Your task to perform on an android device: open app "Expedia: Hotels, Flights & Car" (install if not already installed) and enter user name: "crusader@outlook.com" and password: "Toryize" Image 0: 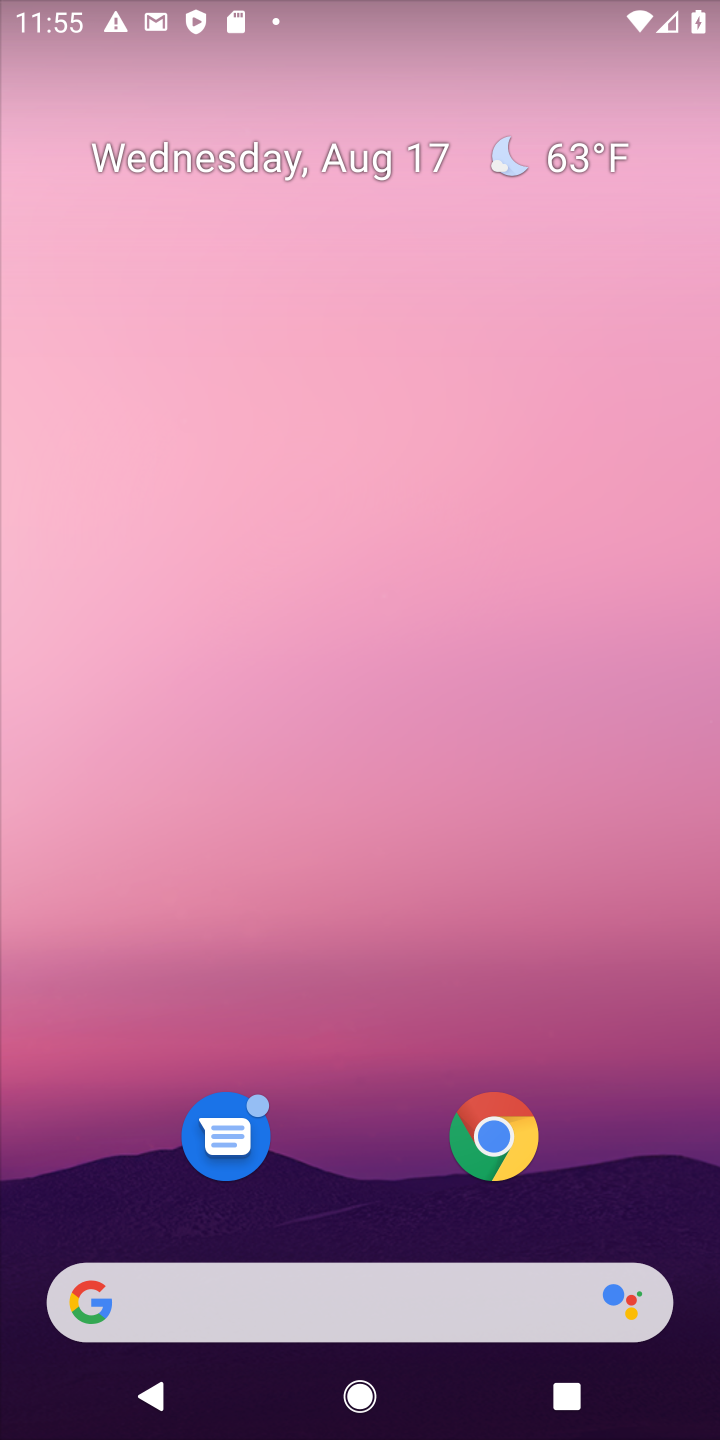
Step 0: drag from (385, 1284) to (400, 161)
Your task to perform on an android device: open app "Expedia: Hotels, Flights & Car" (install if not already installed) and enter user name: "crusader@outlook.com" and password: "Toryize" Image 1: 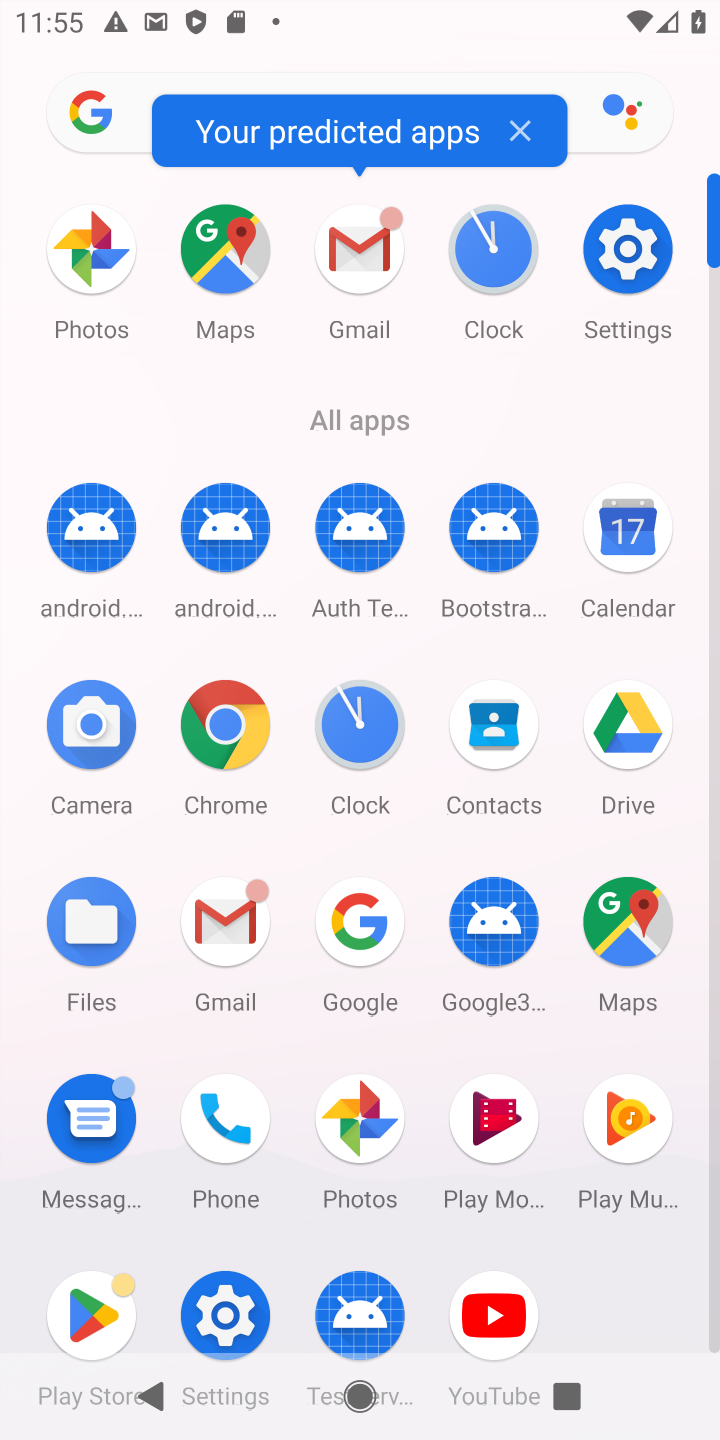
Step 1: drag from (84, 1324) to (452, 655)
Your task to perform on an android device: open app "Expedia: Hotels, Flights & Car" (install if not already installed) and enter user name: "crusader@outlook.com" and password: "Toryize" Image 2: 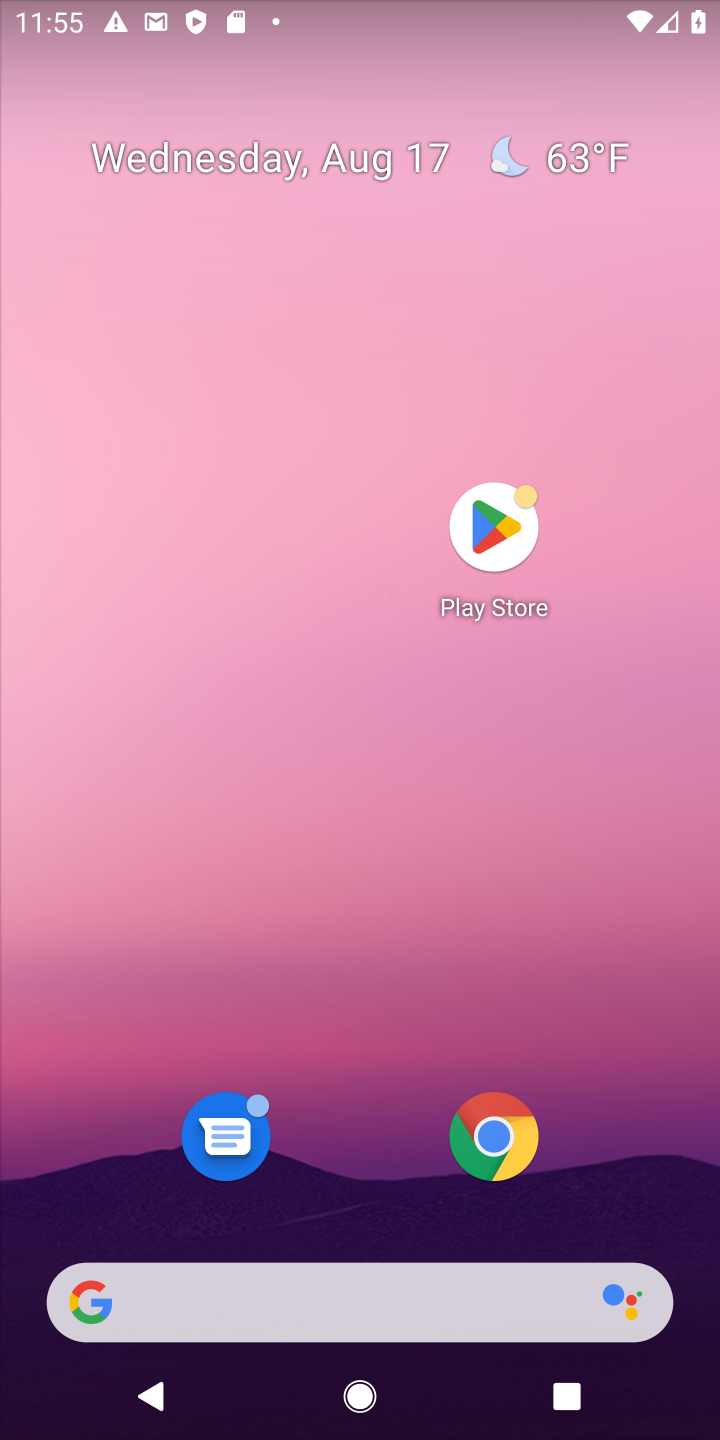
Step 2: drag from (492, 538) to (398, 828)
Your task to perform on an android device: open app "Expedia: Hotels, Flights & Car" (install if not already installed) and enter user name: "crusader@outlook.com" and password: "Toryize" Image 3: 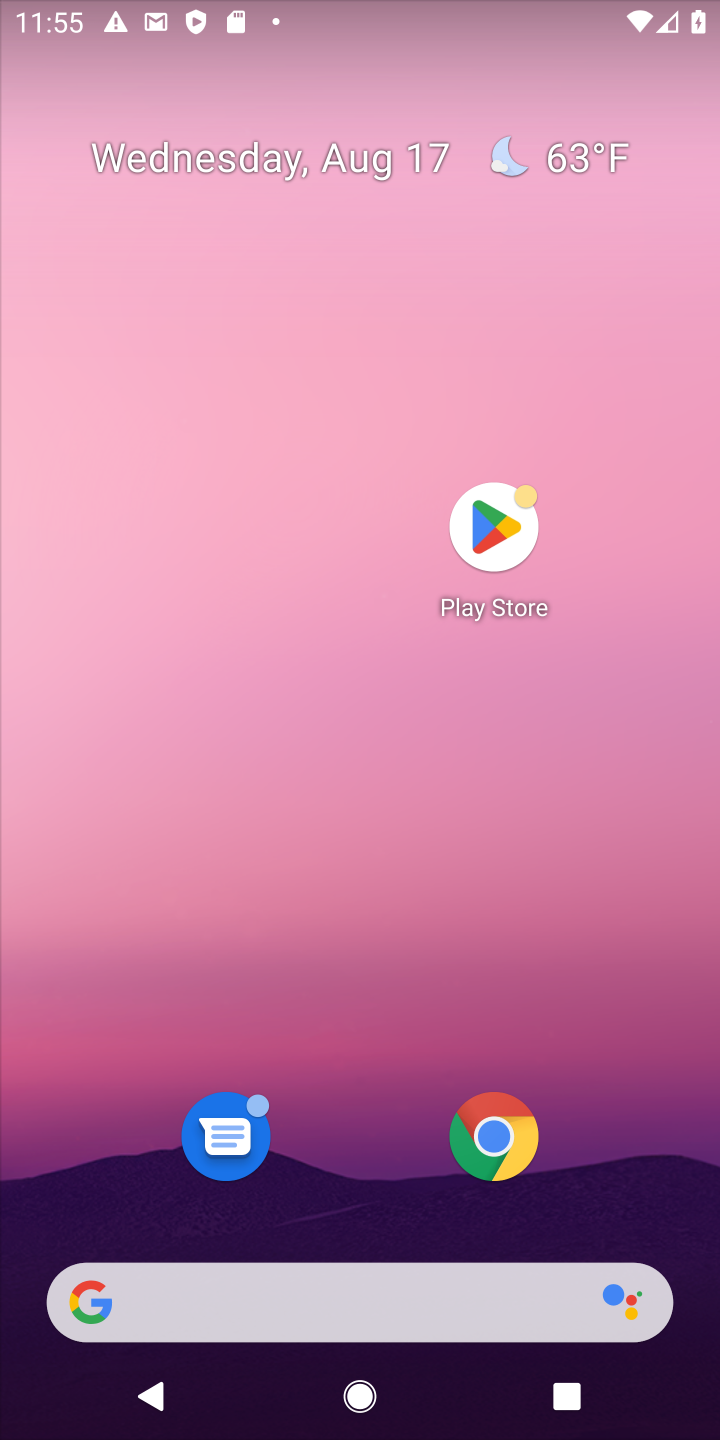
Step 3: drag from (489, 527) to (434, 741)
Your task to perform on an android device: open app "Expedia: Hotels, Flights & Car" (install if not already installed) and enter user name: "crusader@outlook.com" and password: "Toryize" Image 4: 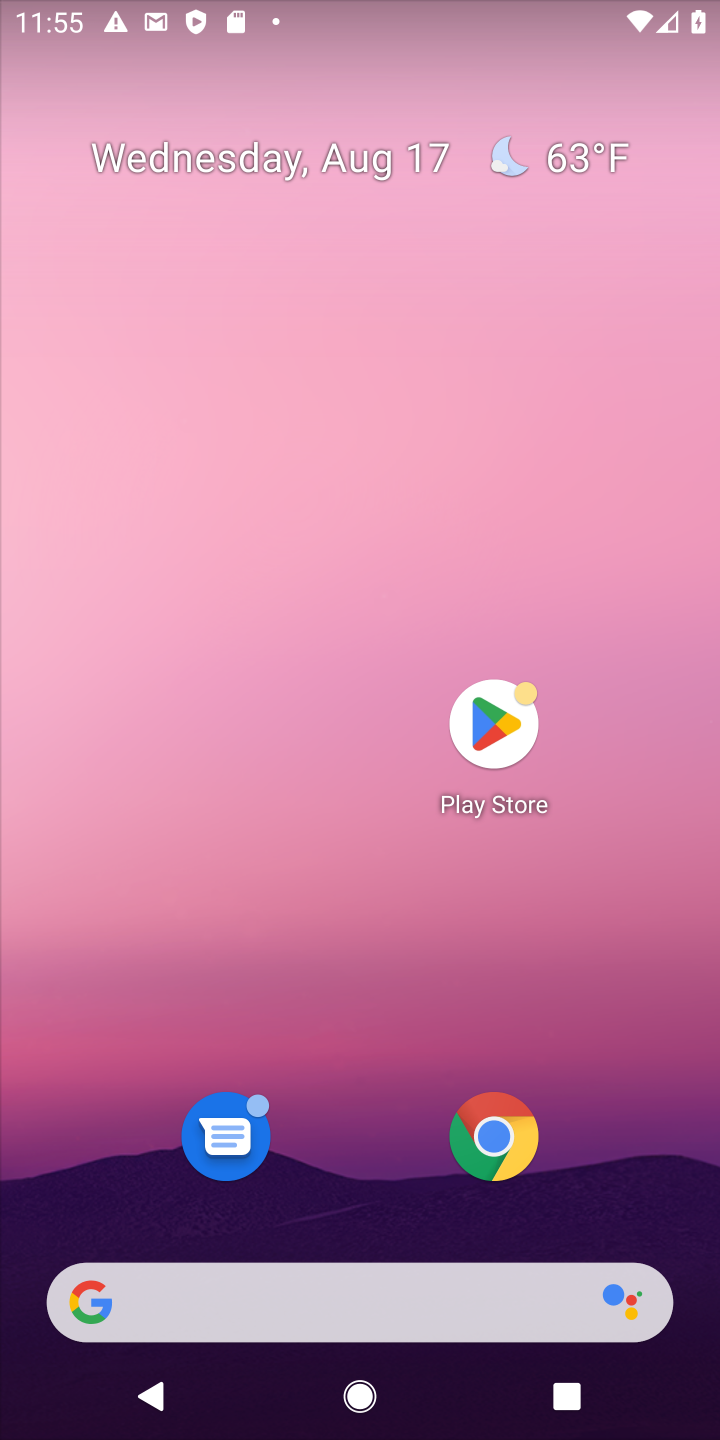
Step 4: click (499, 736)
Your task to perform on an android device: open app "Expedia: Hotels, Flights & Car" (install if not already installed) and enter user name: "crusader@outlook.com" and password: "Toryize" Image 5: 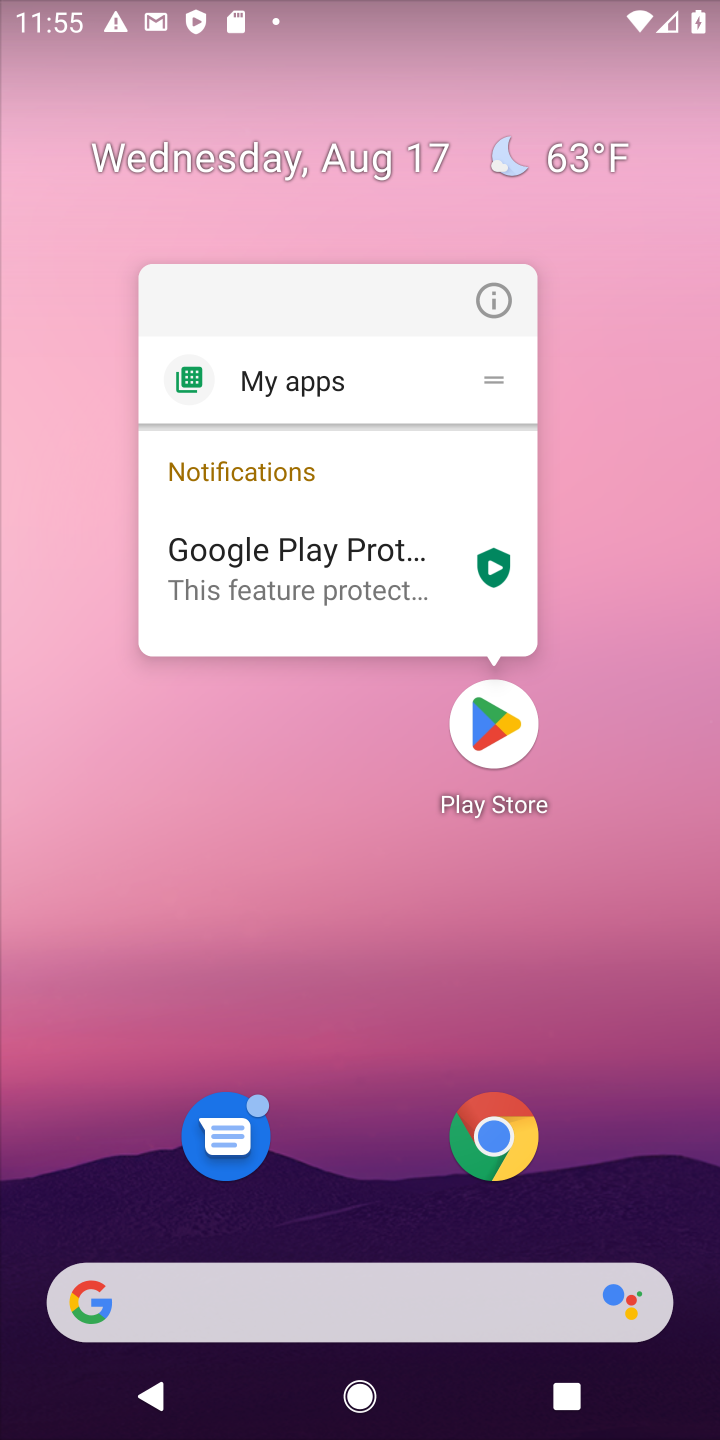
Step 5: click (475, 739)
Your task to perform on an android device: open app "Expedia: Hotels, Flights & Car" (install if not already installed) and enter user name: "crusader@outlook.com" and password: "Toryize" Image 6: 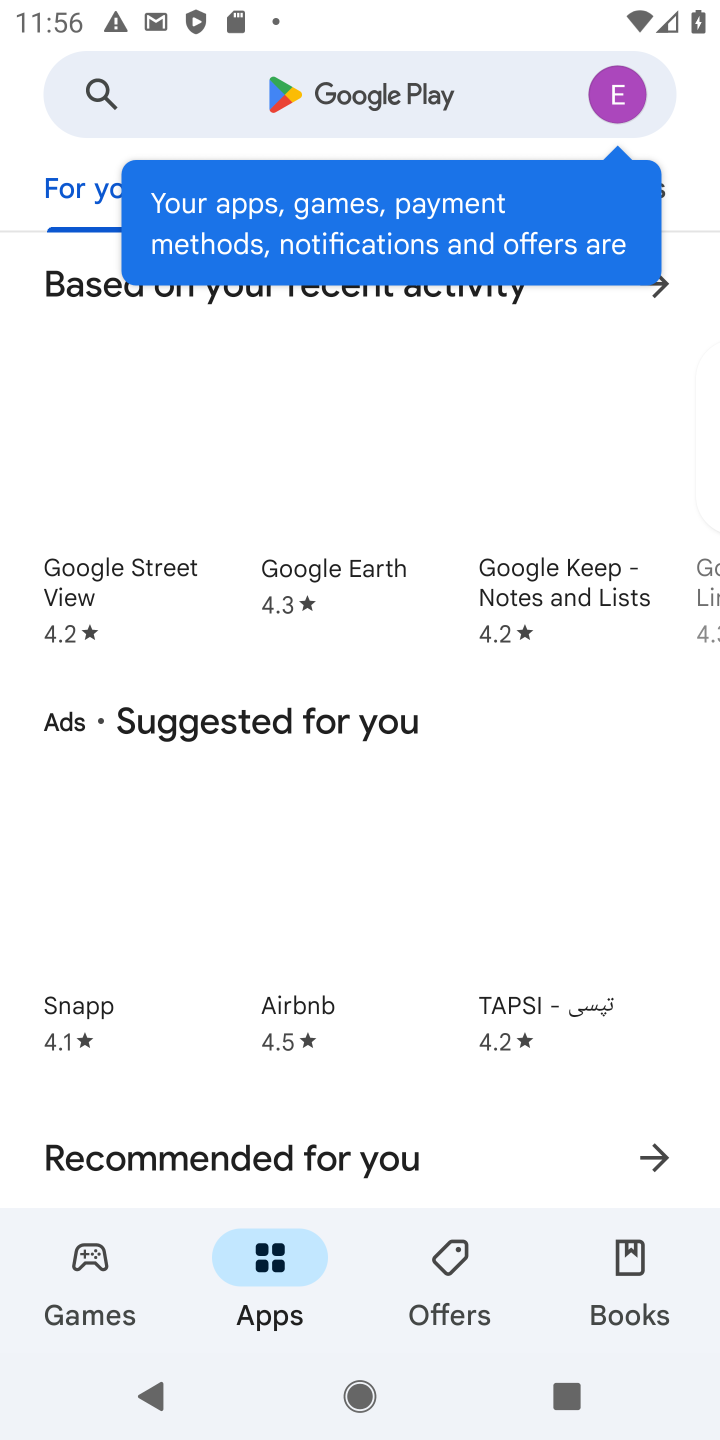
Step 6: click (356, 88)
Your task to perform on an android device: open app "Expedia: Hotels, Flights & Car" (install if not already installed) and enter user name: "crusader@outlook.com" and password: "Toryize" Image 7: 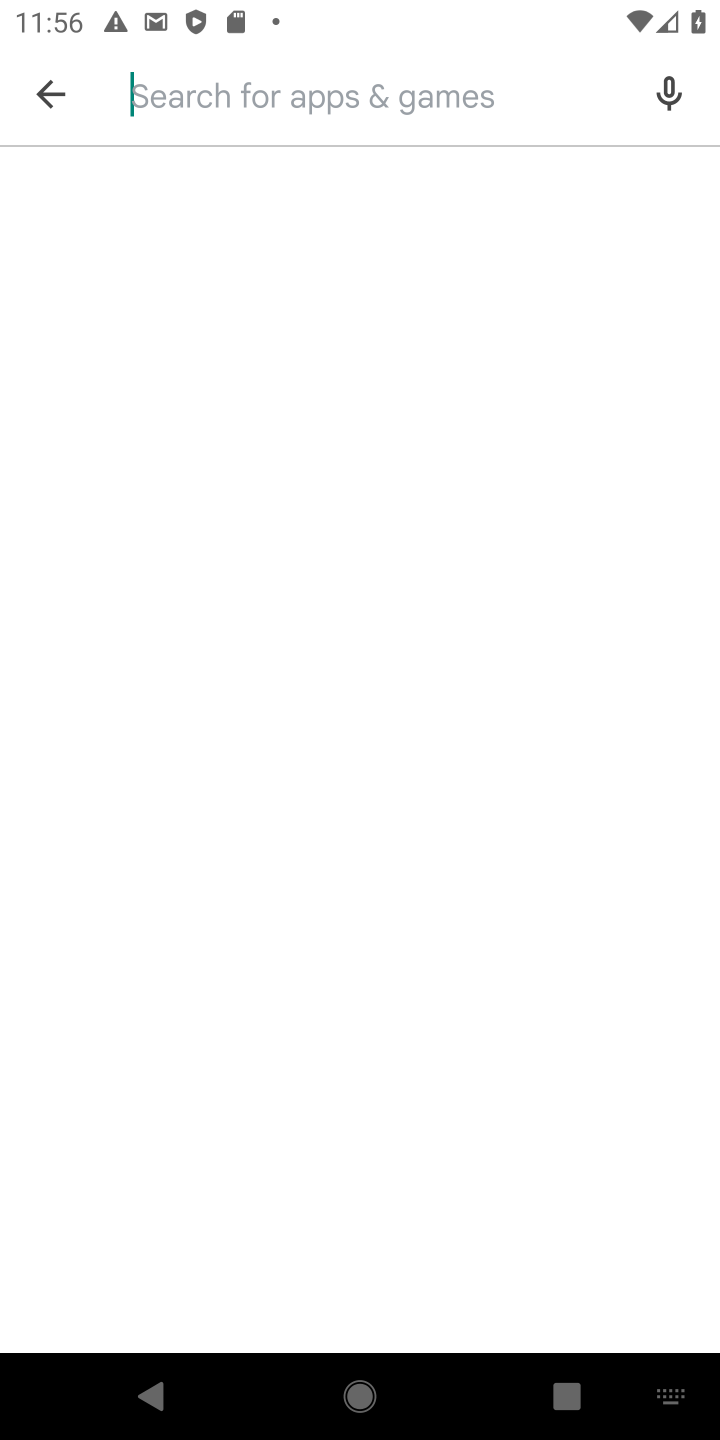
Step 7: type "Expedia: Hotels, Flights & Car"
Your task to perform on an android device: open app "Expedia: Hotels, Flights & Car" (install if not already installed) and enter user name: "crusader@outlook.com" and password: "Toryize" Image 8: 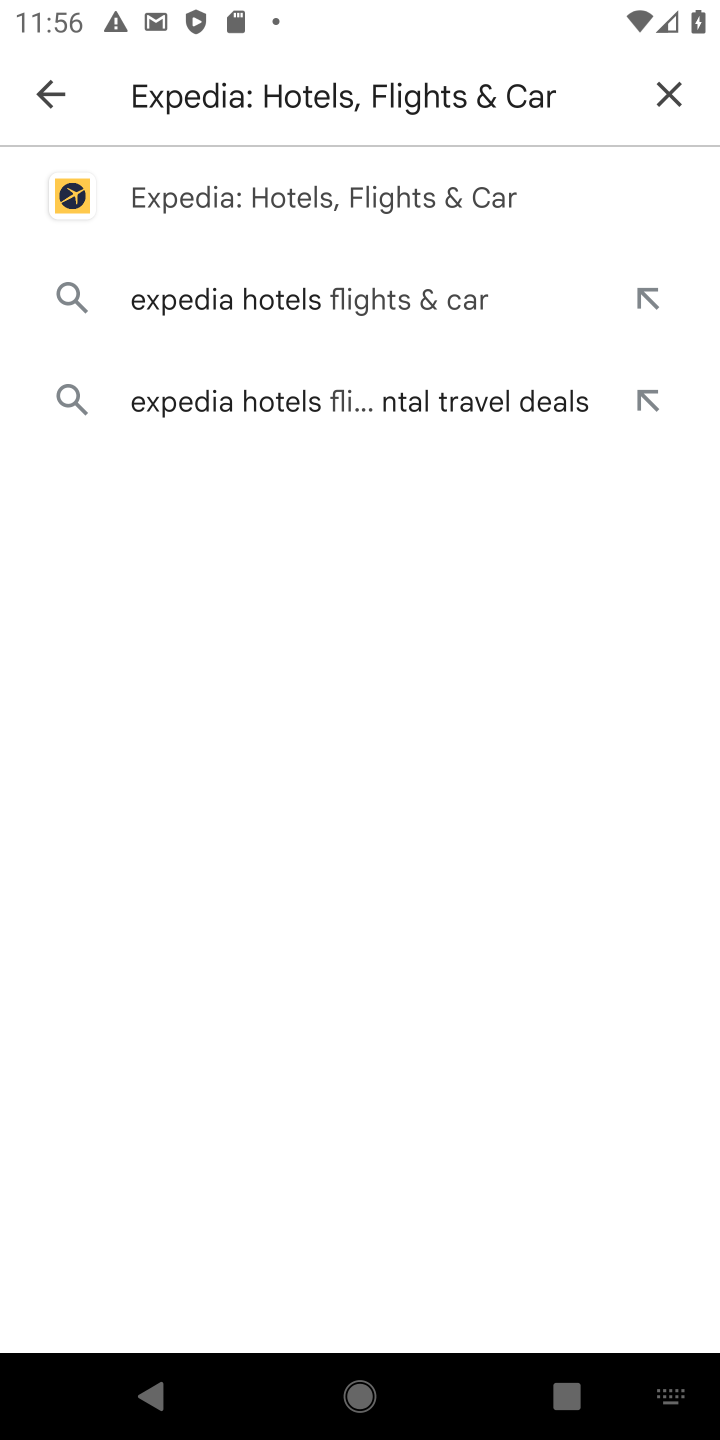
Step 8: click (249, 194)
Your task to perform on an android device: open app "Expedia: Hotels, Flights & Car" (install if not already installed) and enter user name: "crusader@outlook.com" and password: "Toryize" Image 9: 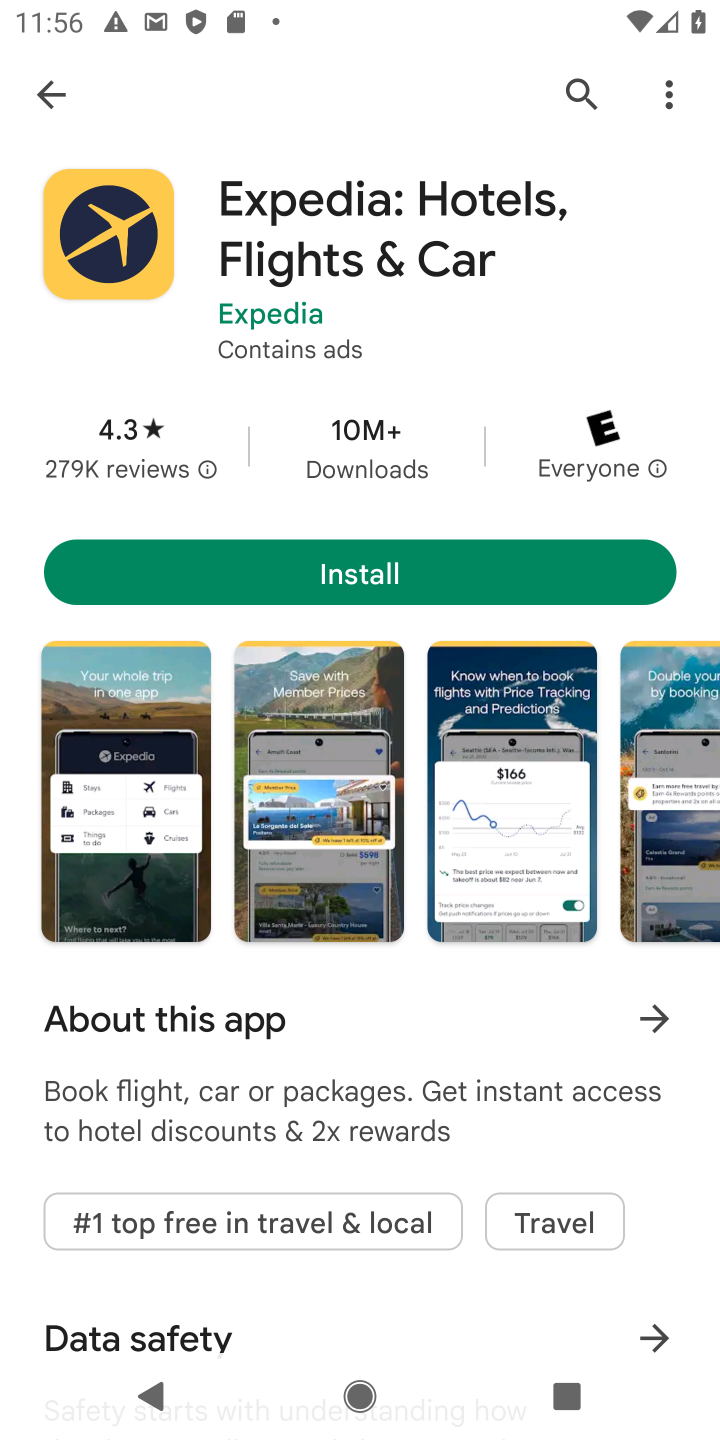
Step 9: click (340, 573)
Your task to perform on an android device: open app "Expedia: Hotels, Flights & Car" (install if not already installed) and enter user name: "crusader@outlook.com" and password: "Toryize" Image 10: 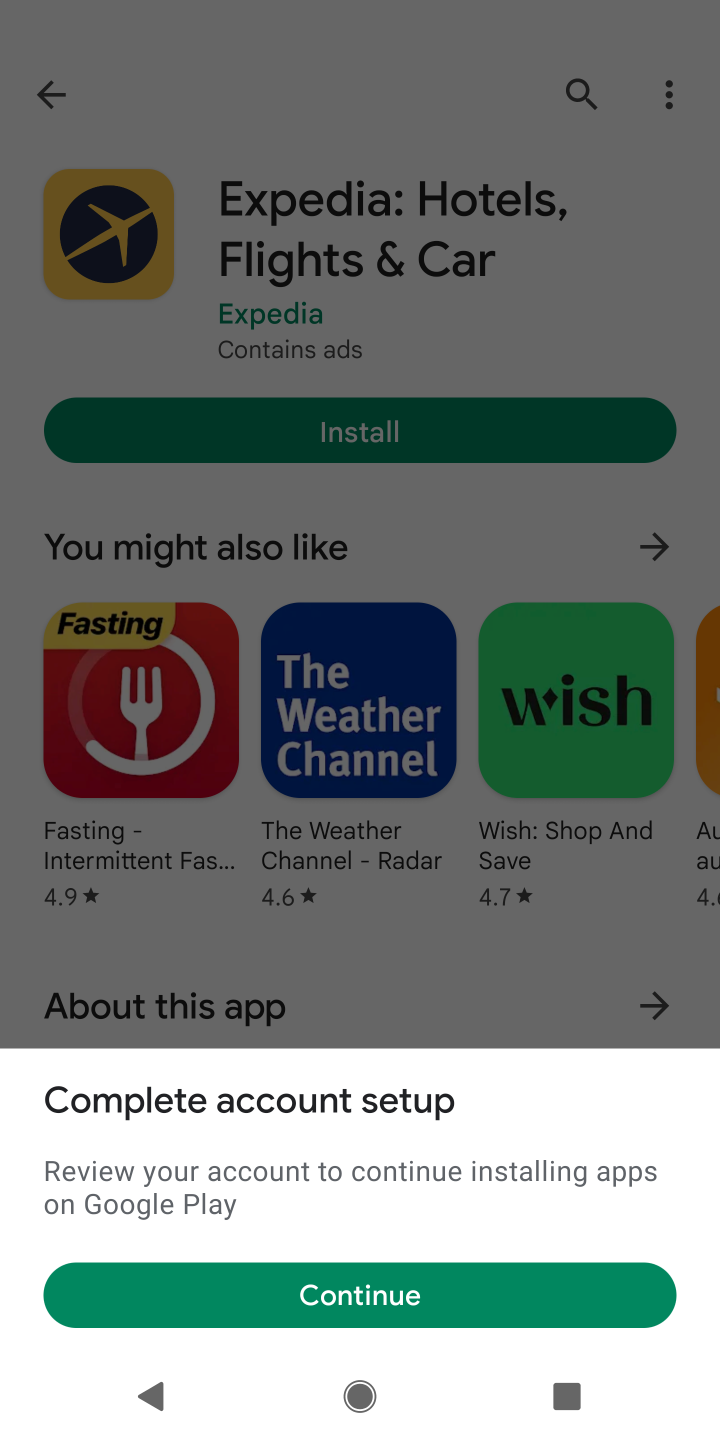
Step 10: click (359, 1304)
Your task to perform on an android device: open app "Expedia: Hotels, Flights & Car" (install if not already installed) and enter user name: "crusader@outlook.com" and password: "Toryize" Image 11: 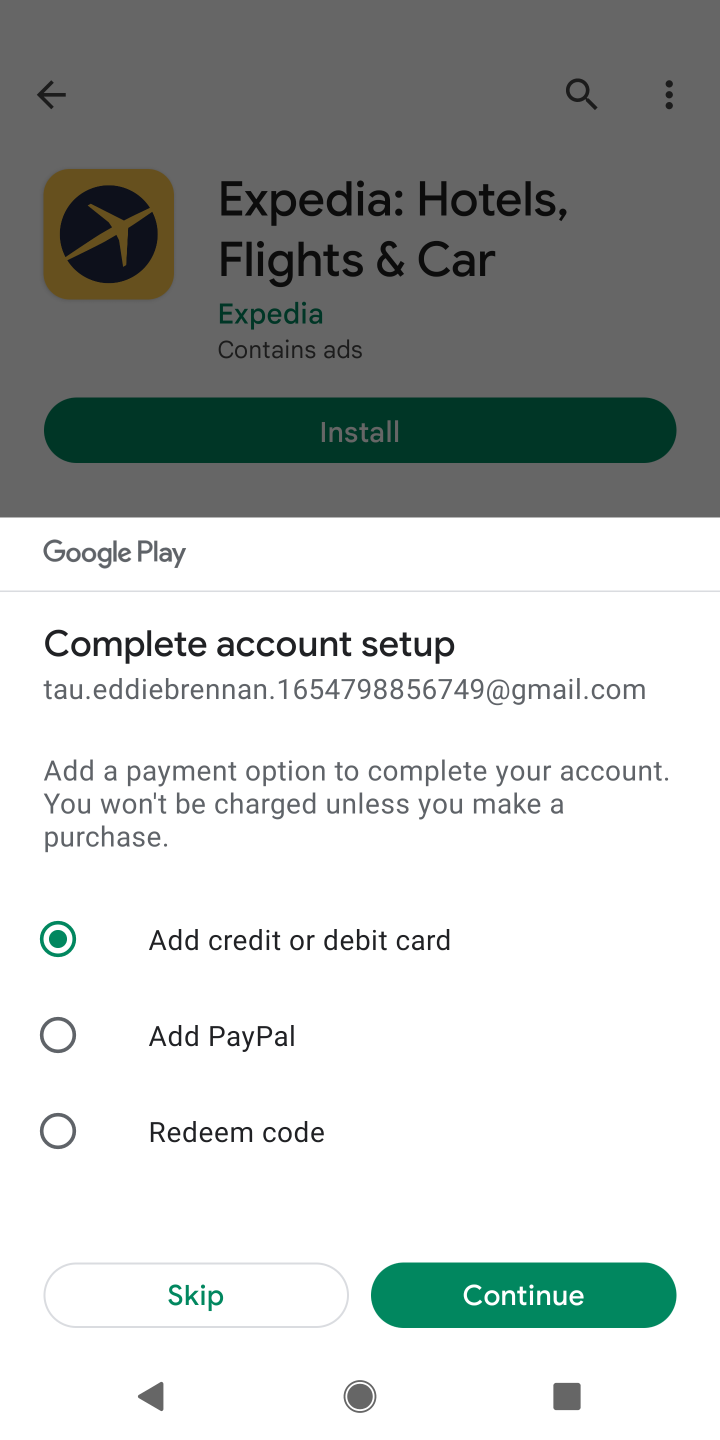
Step 11: click (169, 1306)
Your task to perform on an android device: open app "Expedia: Hotels, Flights & Car" (install if not already installed) and enter user name: "crusader@outlook.com" and password: "Toryize" Image 12: 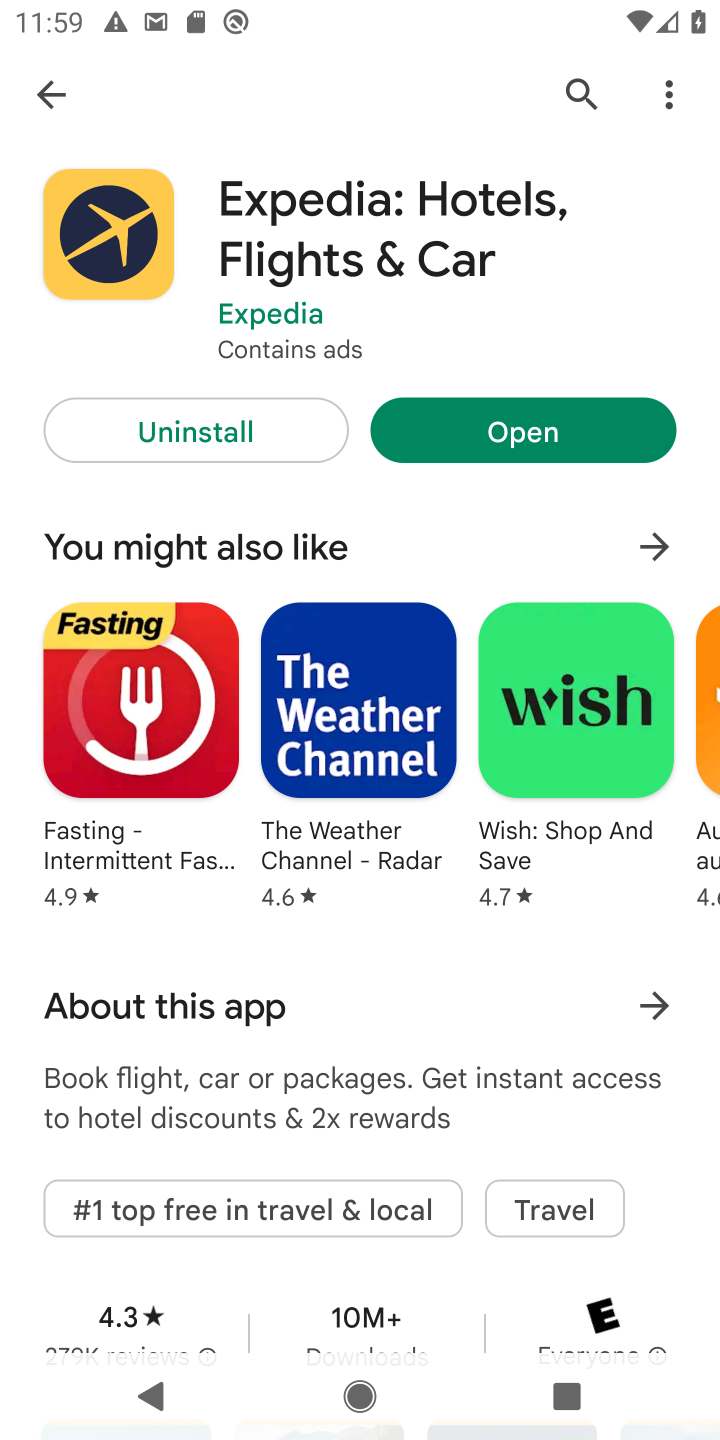
Step 12: click (535, 432)
Your task to perform on an android device: open app "Expedia: Hotels, Flights & Car" (install if not already installed) and enter user name: "crusader@outlook.com" and password: "Toryize" Image 13: 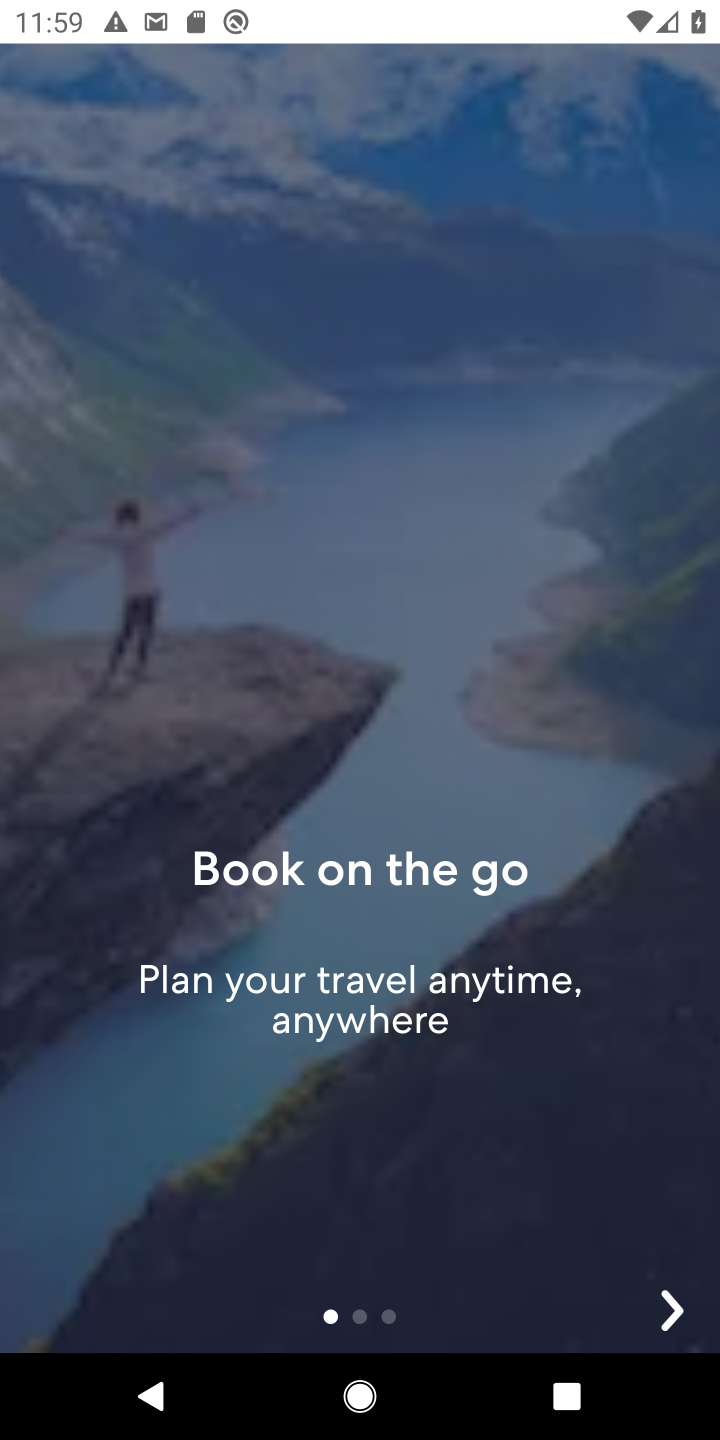
Step 13: click (673, 1297)
Your task to perform on an android device: open app "Expedia: Hotels, Flights & Car" (install if not already installed) and enter user name: "crusader@outlook.com" and password: "Toryize" Image 14: 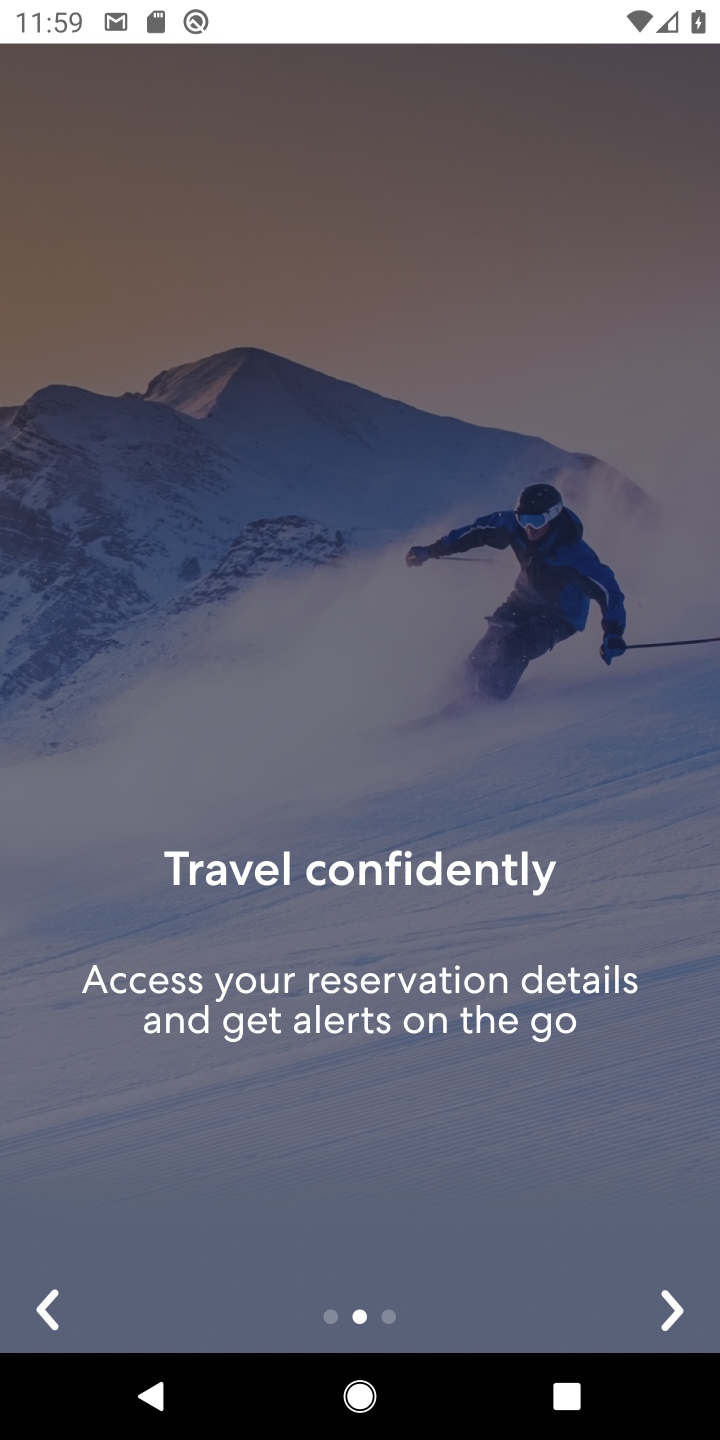
Step 14: click (675, 1313)
Your task to perform on an android device: open app "Expedia: Hotels, Flights & Car" (install if not already installed) and enter user name: "crusader@outlook.com" and password: "Toryize" Image 15: 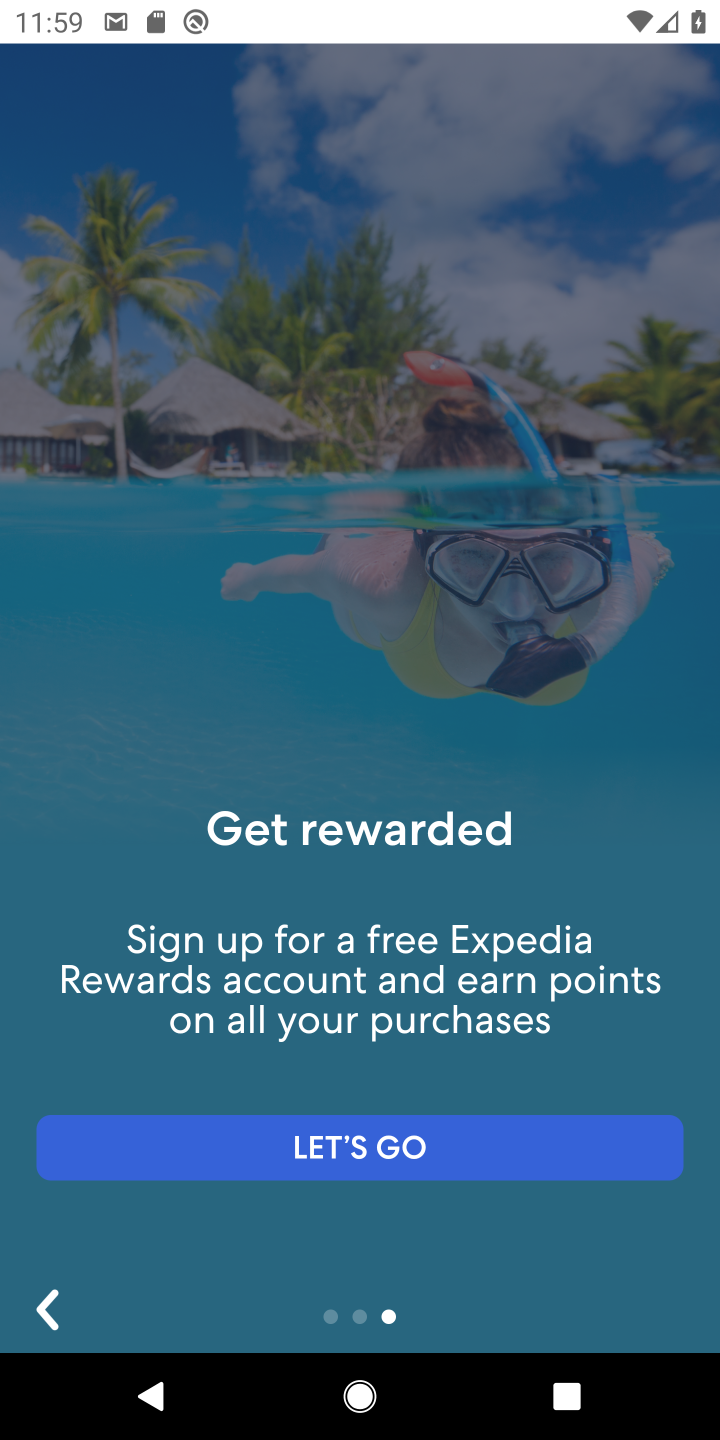
Step 15: click (402, 1151)
Your task to perform on an android device: open app "Expedia: Hotels, Flights & Car" (install if not already installed) and enter user name: "crusader@outlook.com" and password: "Toryize" Image 16: 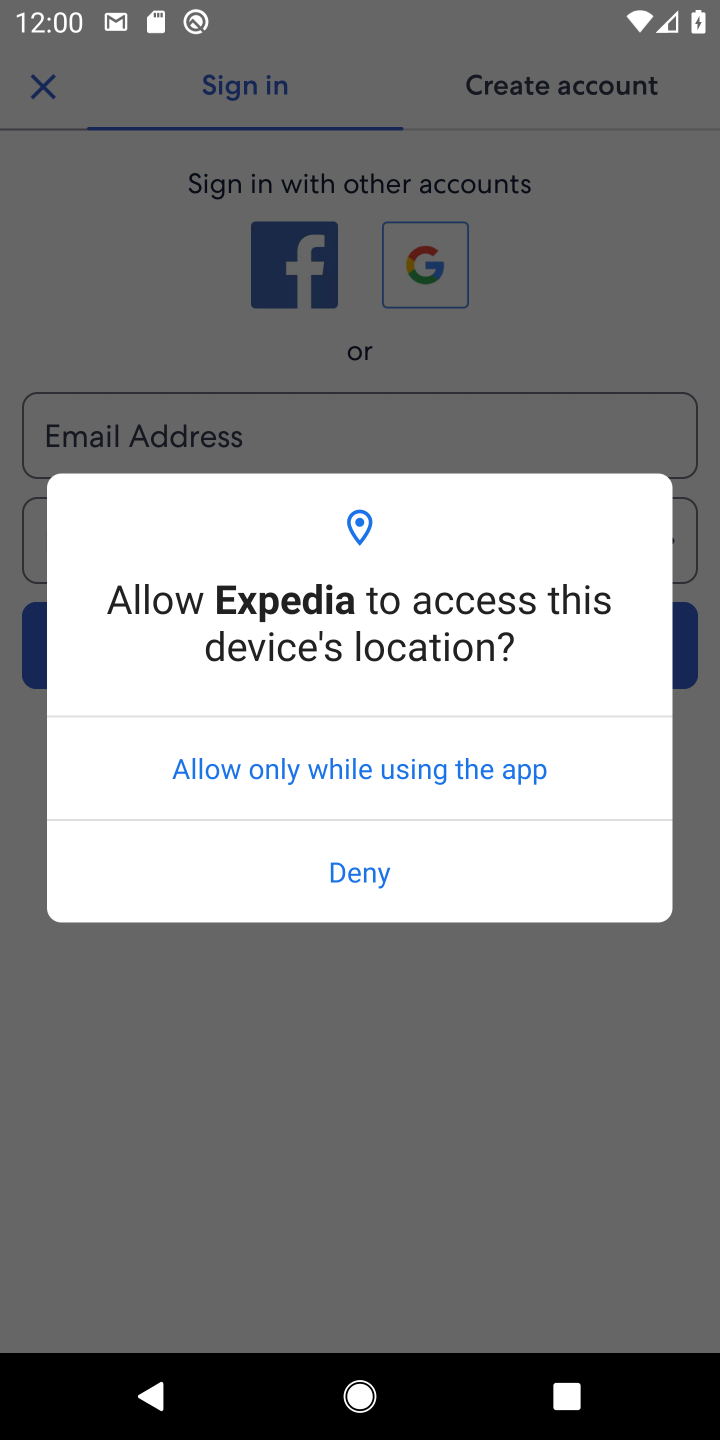
Step 16: click (461, 764)
Your task to perform on an android device: open app "Expedia: Hotels, Flights & Car" (install if not already installed) and enter user name: "crusader@outlook.com" and password: "Toryize" Image 17: 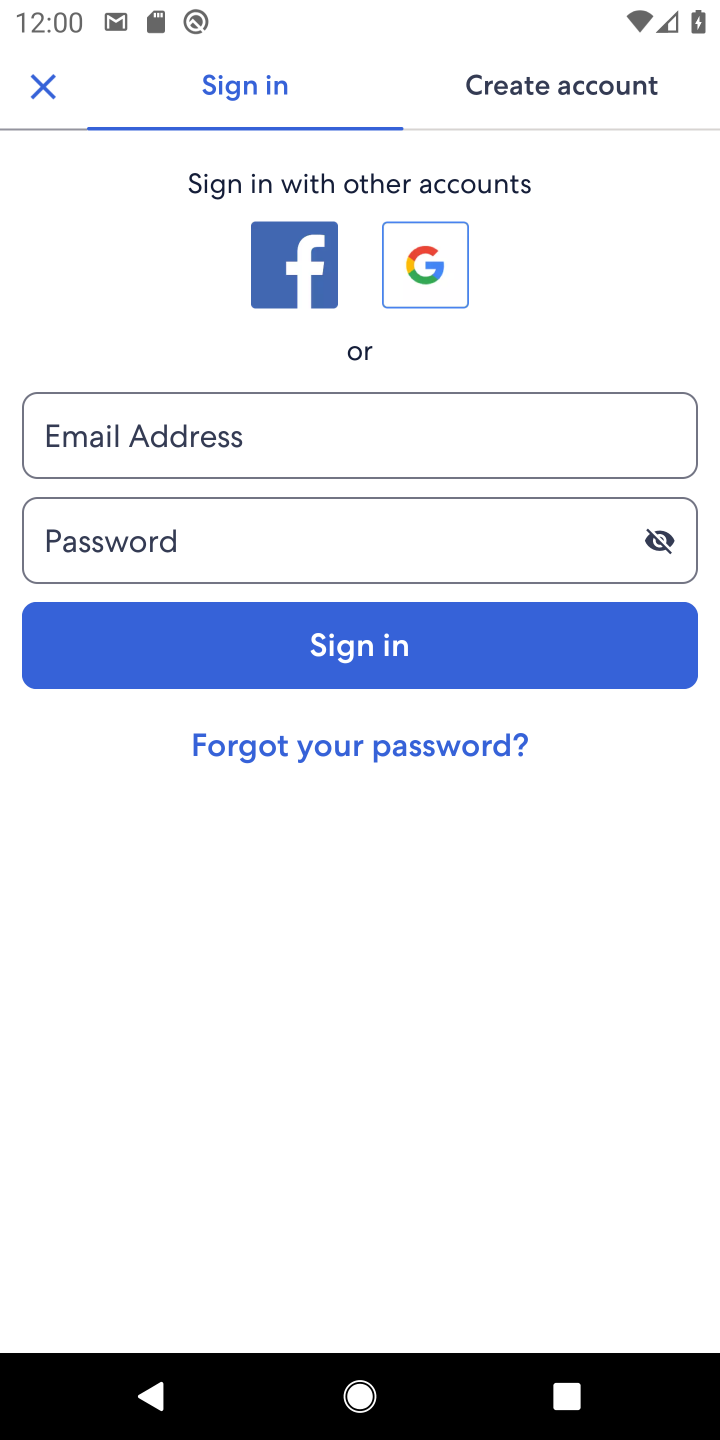
Step 17: click (379, 452)
Your task to perform on an android device: open app "Expedia: Hotels, Flights & Car" (install if not already installed) and enter user name: "crusader@outlook.com" and password: "Toryize" Image 18: 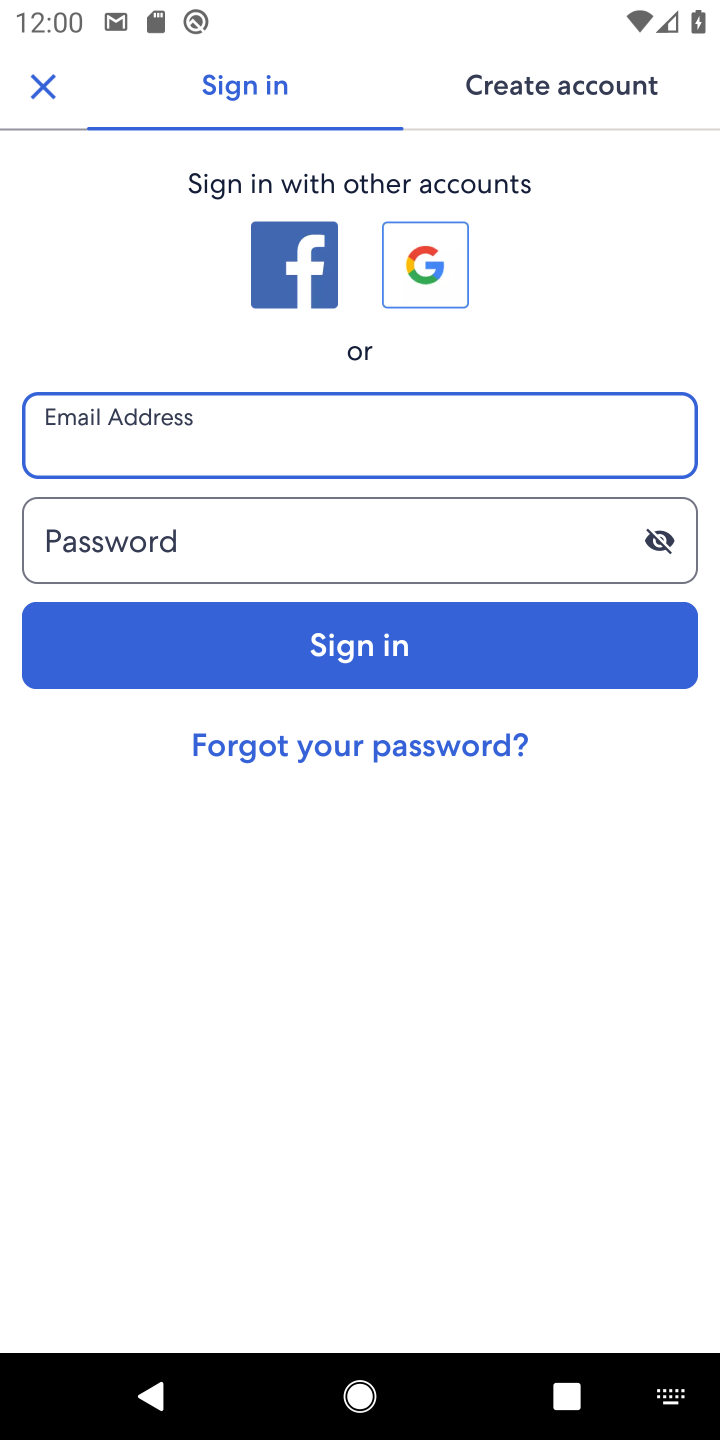
Step 18: type "crusader@outlook.com"
Your task to perform on an android device: open app "Expedia: Hotels, Flights & Car" (install if not already installed) and enter user name: "crusader@outlook.com" and password: "Toryize" Image 19: 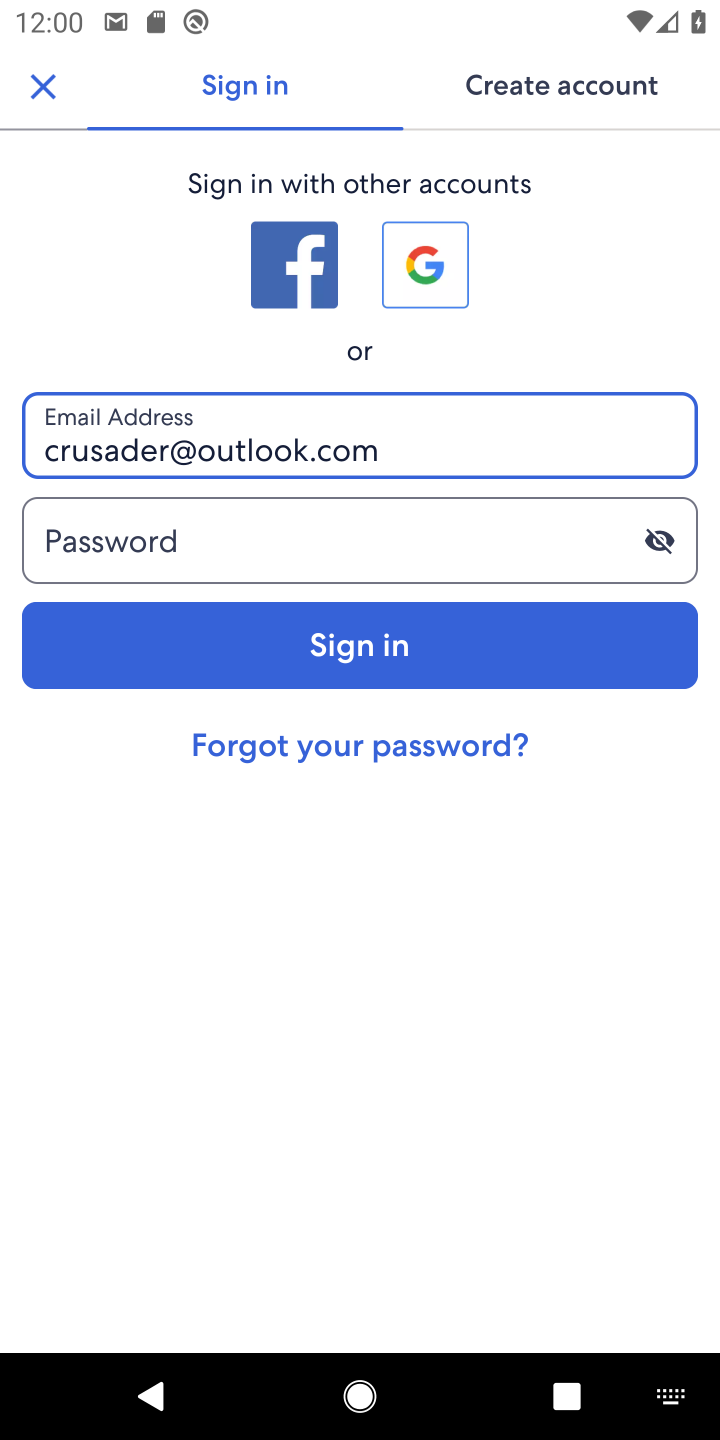
Step 19: click (109, 535)
Your task to perform on an android device: open app "Expedia: Hotels, Flights & Car" (install if not already installed) and enter user name: "crusader@outlook.com" and password: "Toryize" Image 20: 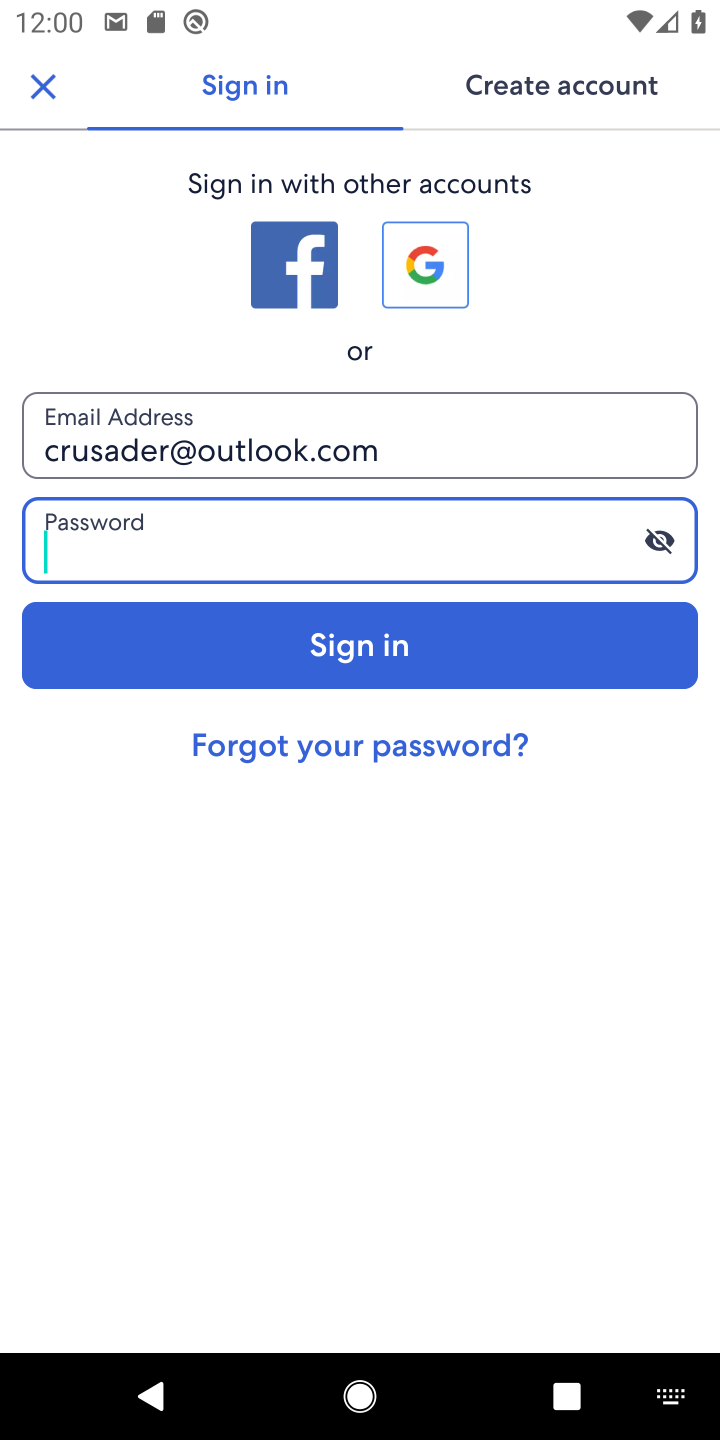
Step 20: type "Toryize"
Your task to perform on an android device: open app "Expedia: Hotels, Flights & Car" (install if not already installed) and enter user name: "crusader@outlook.com" and password: "Toryize" Image 21: 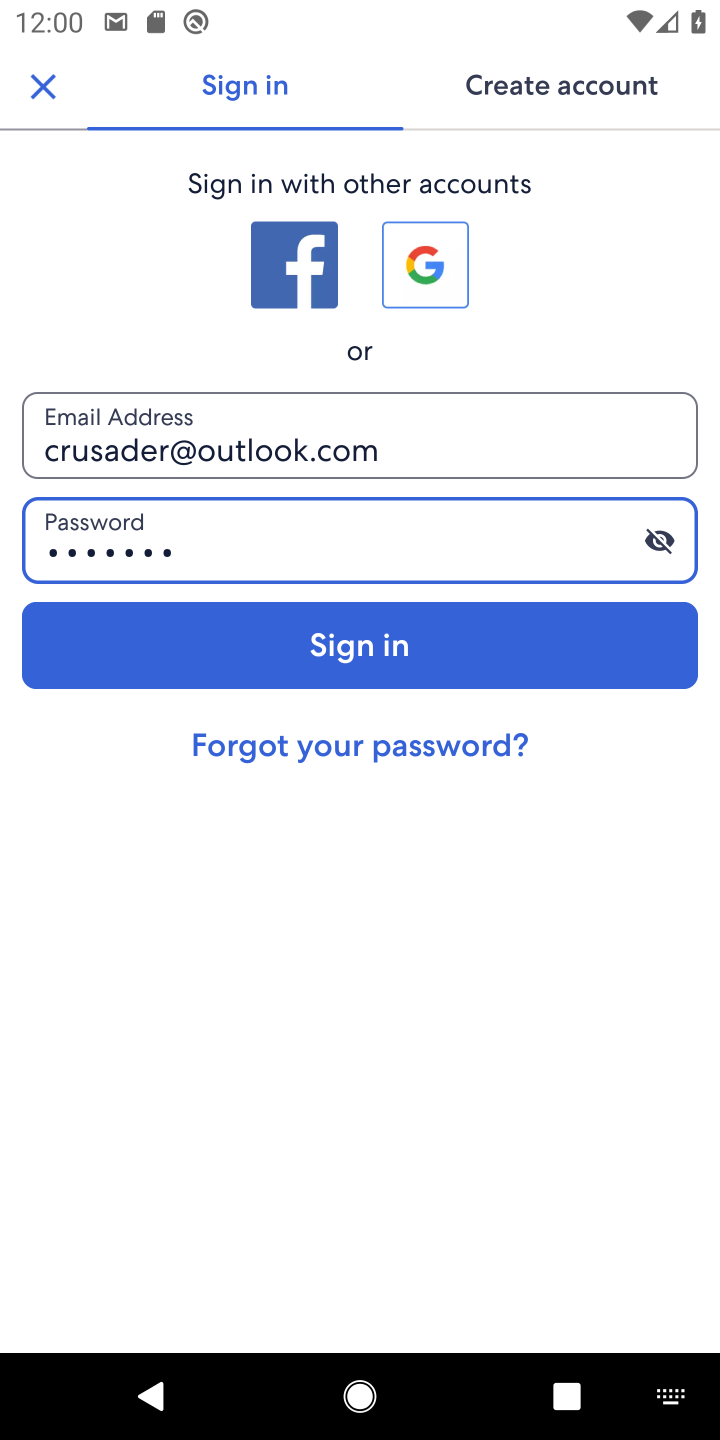
Step 21: task complete